Your task to perform on an android device: all mails in gmail Image 0: 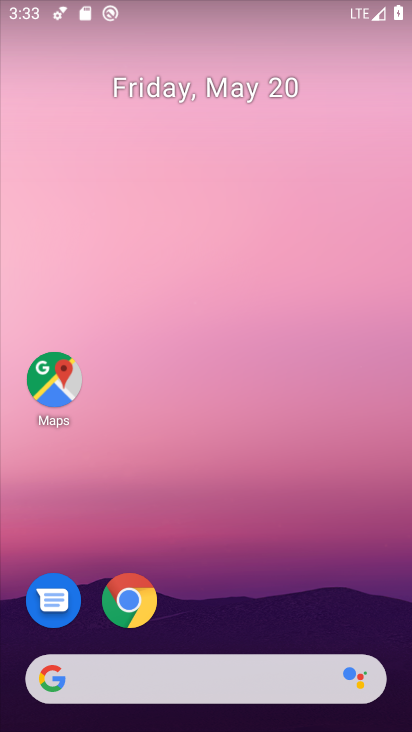
Step 0: drag from (373, 623) to (356, 202)
Your task to perform on an android device: all mails in gmail Image 1: 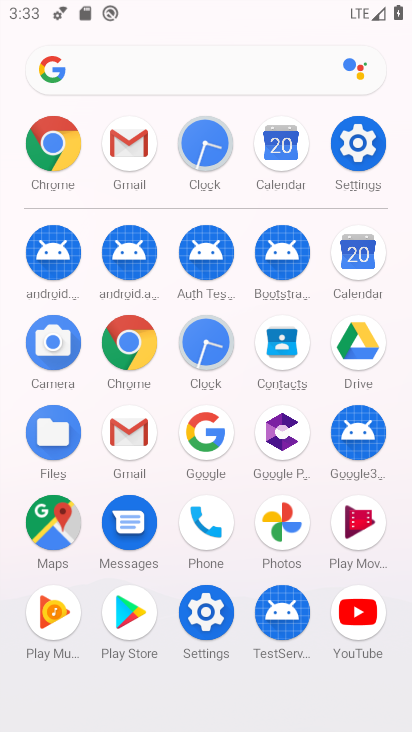
Step 1: click (128, 449)
Your task to perform on an android device: all mails in gmail Image 2: 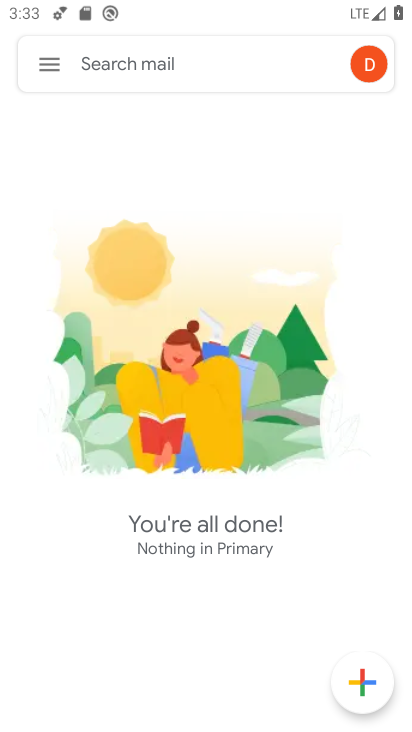
Step 2: click (50, 73)
Your task to perform on an android device: all mails in gmail Image 3: 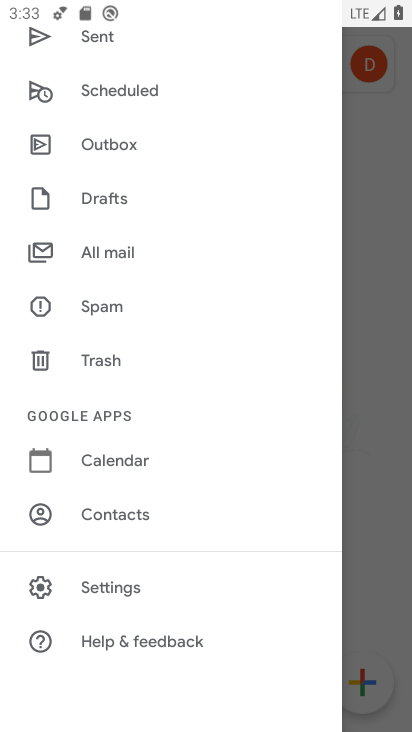
Step 3: click (130, 252)
Your task to perform on an android device: all mails in gmail Image 4: 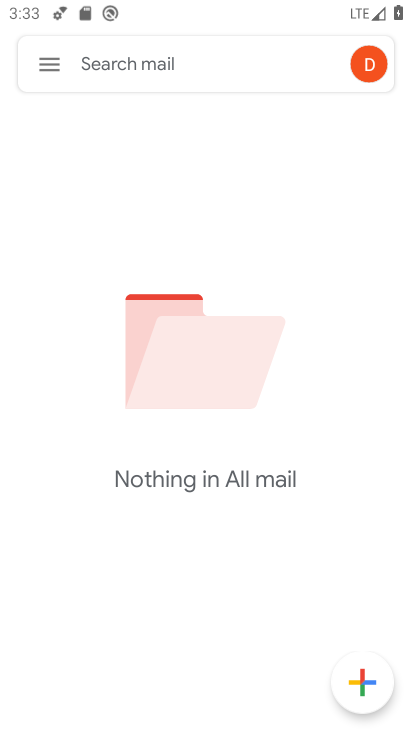
Step 4: task complete